Your task to perform on an android device: Turn on the flashlight Image 0: 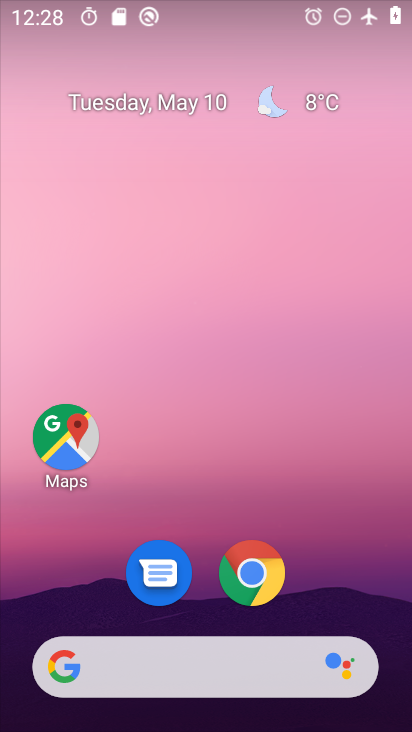
Step 0: drag from (269, 15) to (312, 546)
Your task to perform on an android device: Turn on the flashlight Image 1: 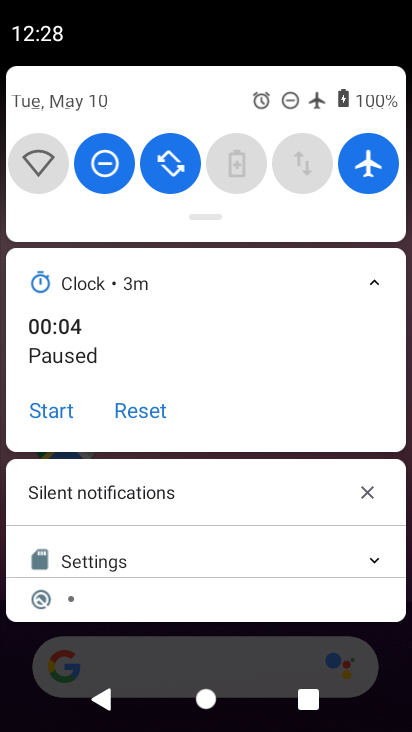
Step 1: task complete